Your task to perform on an android device: change the clock display to show seconds Image 0: 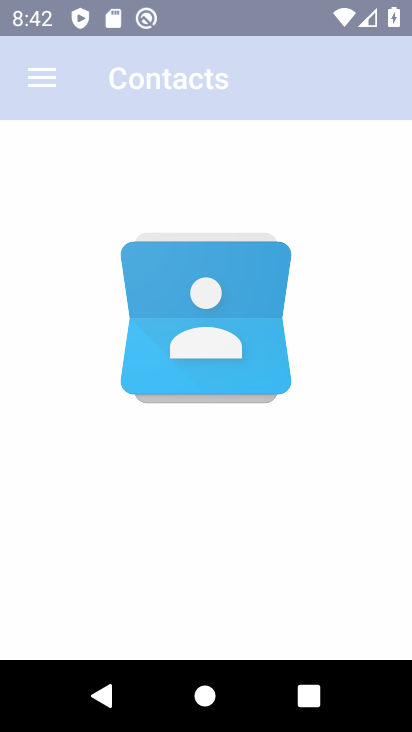
Step 0: drag from (352, 537) to (378, 268)
Your task to perform on an android device: change the clock display to show seconds Image 1: 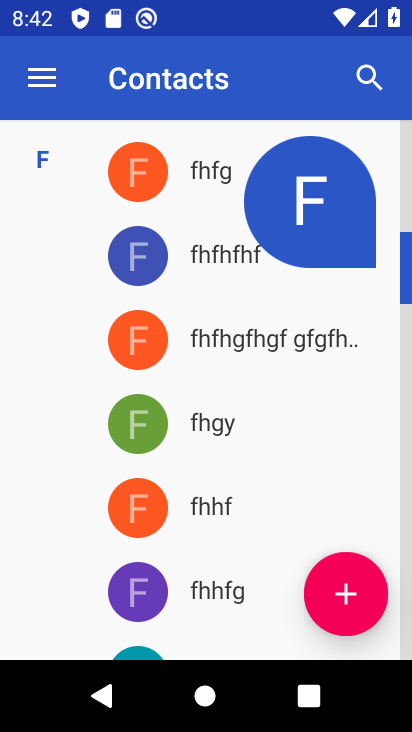
Step 1: press home button
Your task to perform on an android device: change the clock display to show seconds Image 2: 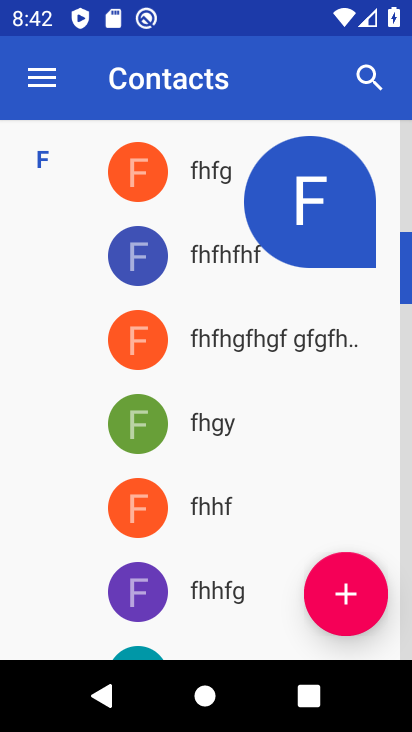
Step 2: press home button
Your task to perform on an android device: change the clock display to show seconds Image 3: 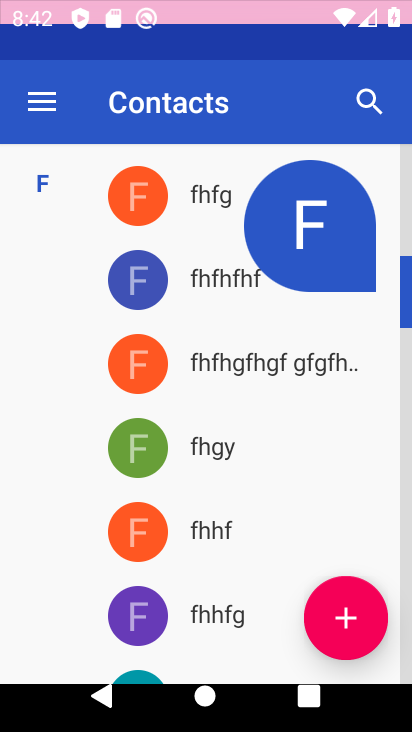
Step 3: drag from (378, 268) to (391, 65)
Your task to perform on an android device: change the clock display to show seconds Image 4: 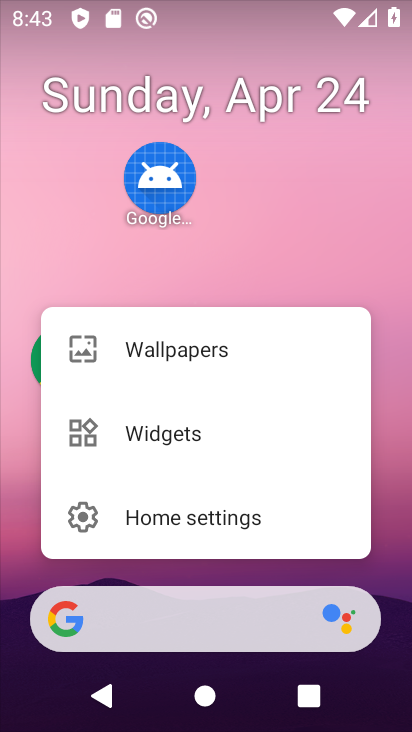
Step 4: click (339, 239)
Your task to perform on an android device: change the clock display to show seconds Image 5: 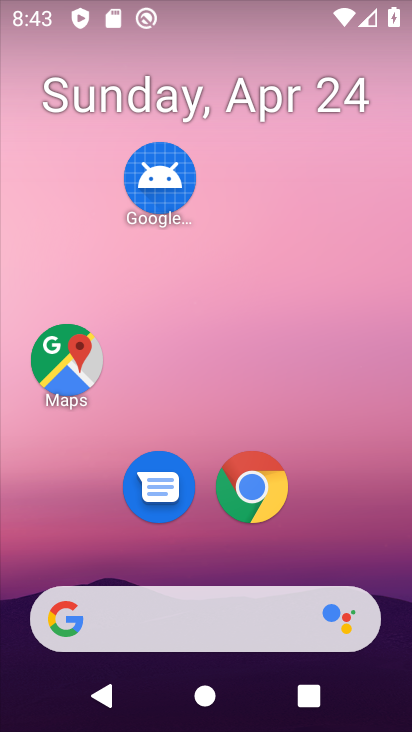
Step 5: drag from (338, 543) to (310, 122)
Your task to perform on an android device: change the clock display to show seconds Image 6: 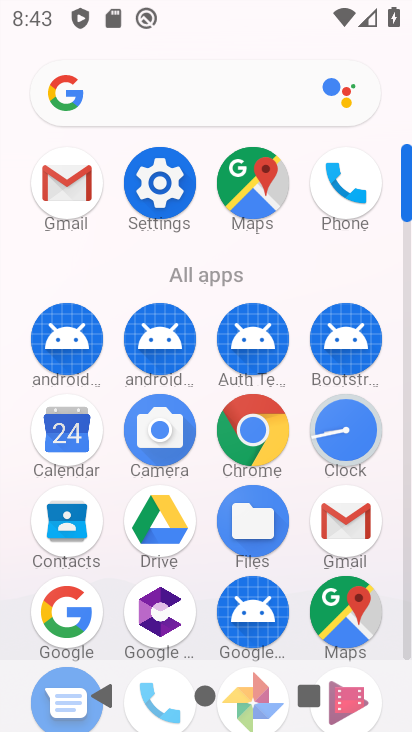
Step 6: click (345, 429)
Your task to perform on an android device: change the clock display to show seconds Image 7: 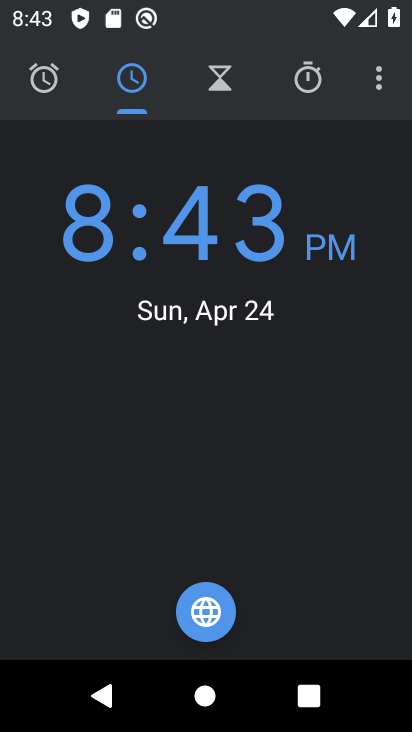
Step 7: click (387, 88)
Your task to perform on an android device: change the clock display to show seconds Image 8: 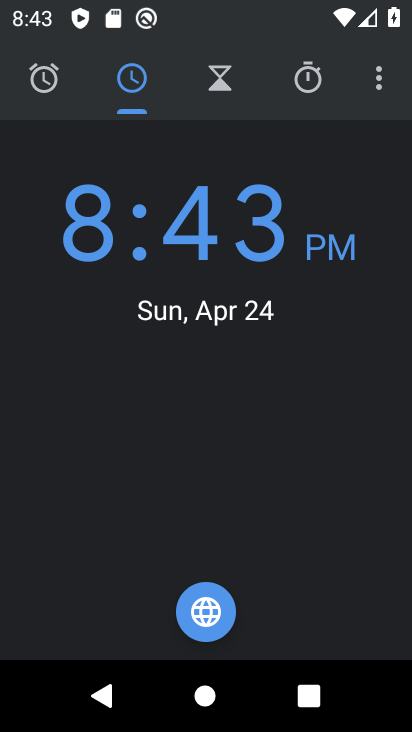
Step 8: click (382, 81)
Your task to perform on an android device: change the clock display to show seconds Image 9: 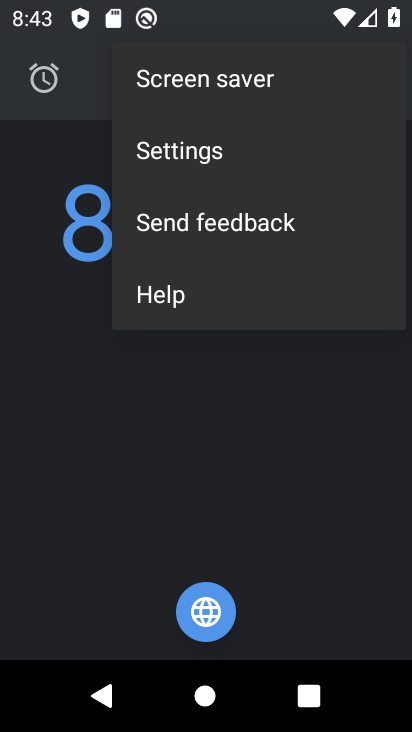
Step 9: click (202, 140)
Your task to perform on an android device: change the clock display to show seconds Image 10: 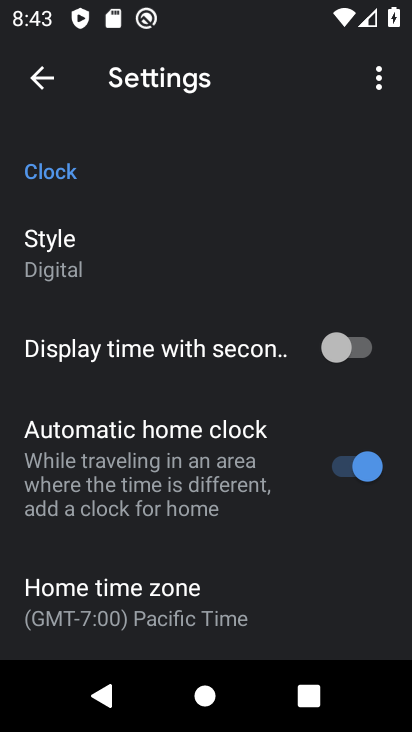
Step 10: click (350, 348)
Your task to perform on an android device: change the clock display to show seconds Image 11: 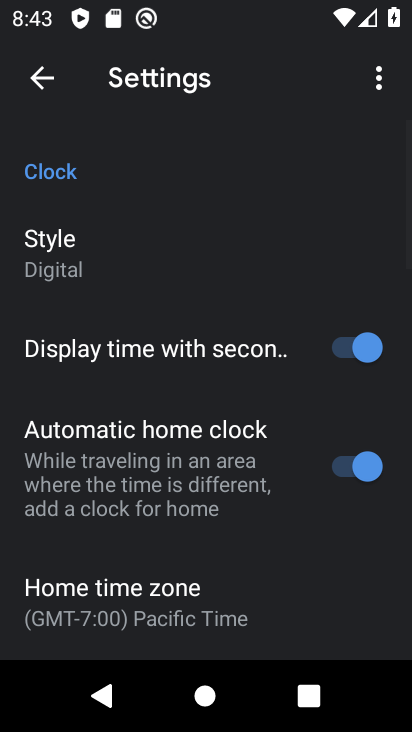
Step 11: task complete